Your task to perform on an android device: How much does a 3 bedroom apartment rent for in Denver? Image 0: 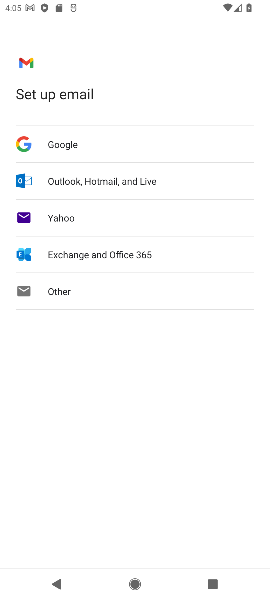
Step 0: press home button
Your task to perform on an android device: How much does a 3 bedroom apartment rent for in Denver? Image 1: 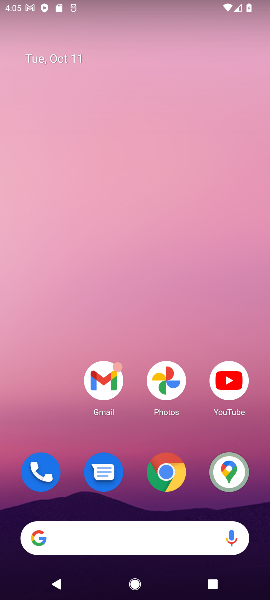
Step 1: click (136, 528)
Your task to perform on an android device: How much does a 3 bedroom apartment rent for in Denver? Image 2: 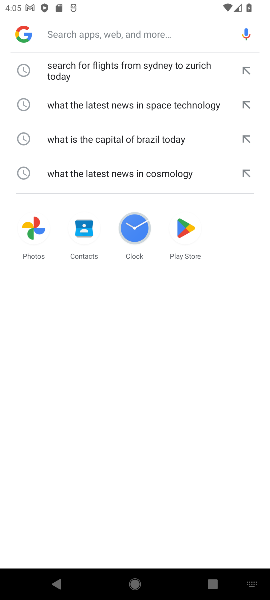
Step 2: type "How much does a 3 bedroom apartment rent for in Denver?"
Your task to perform on an android device: How much does a 3 bedroom apartment rent for in Denver? Image 3: 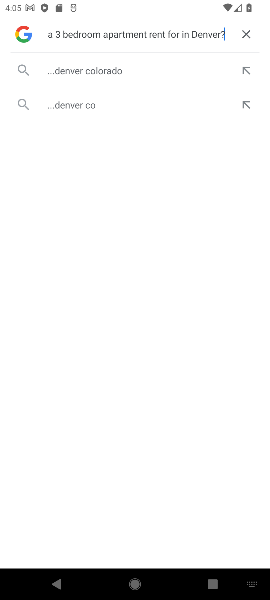
Step 3: click (115, 68)
Your task to perform on an android device: How much does a 3 bedroom apartment rent for in Denver? Image 4: 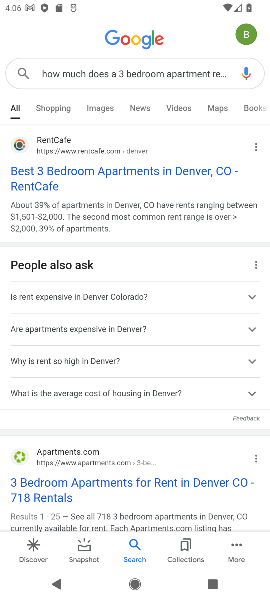
Step 4: task complete